Your task to perform on an android device: toggle pop-ups in chrome Image 0: 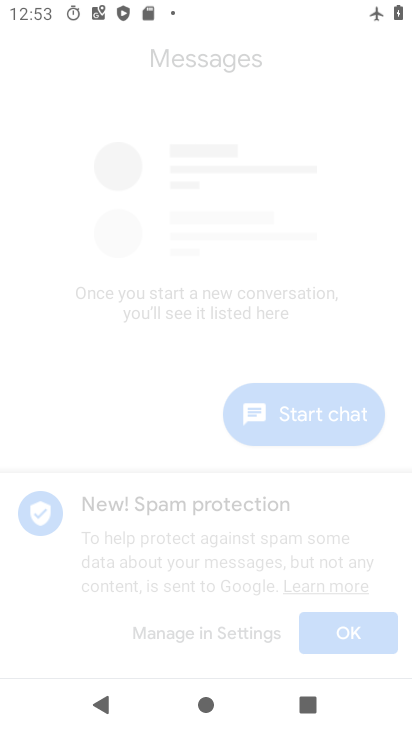
Step 0: drag from (233, 547) to (380, 110)
Your task to perform on an android device: toggle pop-ups in chrome Image 1: 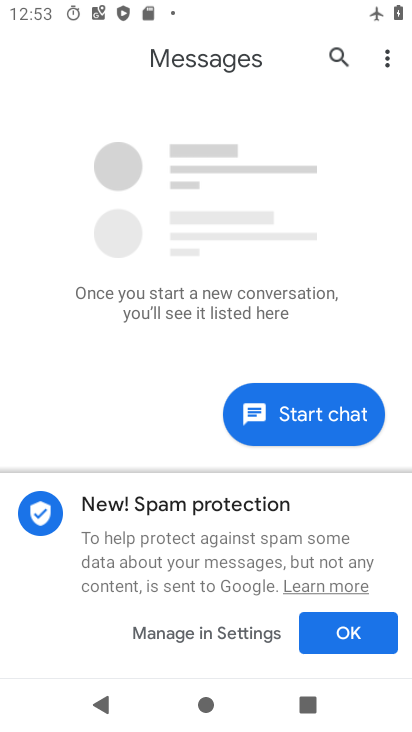
Step 1: press home button
Your task to perform on an android device: toggle pop-ups in chrome Image 2: 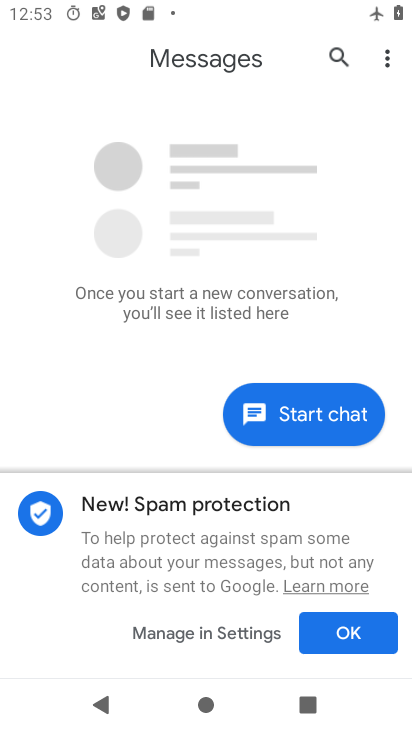
Step 2: click (402, 344)
Your task to perform on an android device: toggle pop-ups in chrome Image 3: 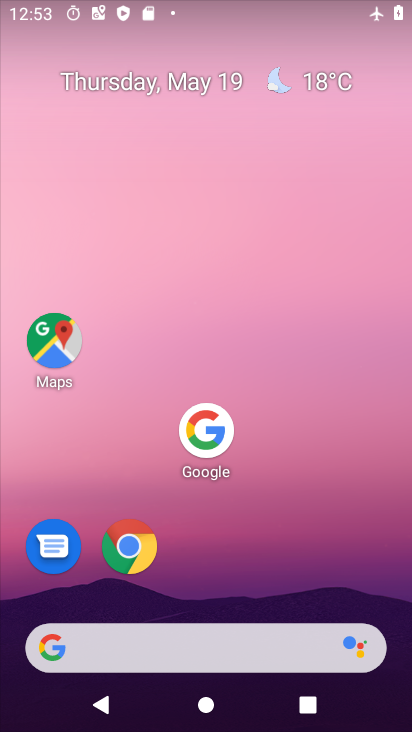
Step 3: click (134, 545)
Your task to perform on an android device: toggle pop-ups in chrome Image 4: 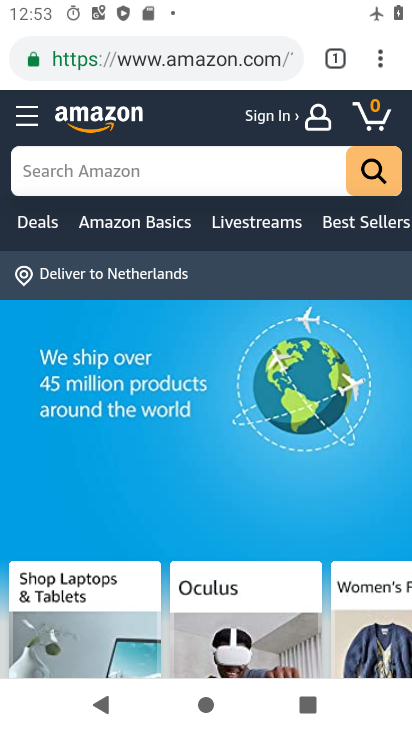
Step 4: click (373, 65)
Your task to perform on an android device: toggle pop-ups in chrome Image 5: 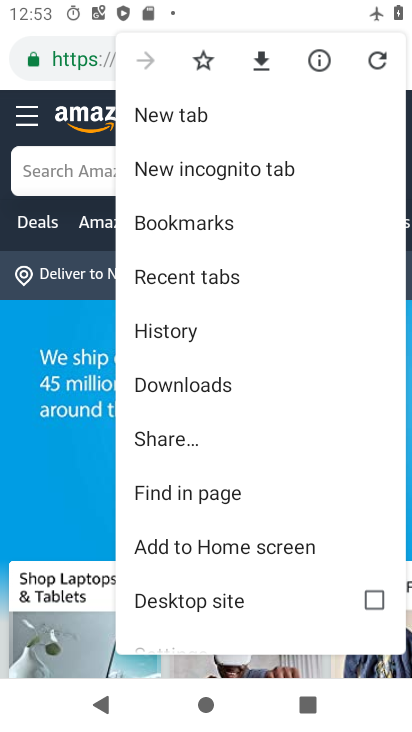
Step 5: drag from (272, 501) to (261, 210)
Your task to perform on an android device: toggle pop-ups in chrome Image 6: 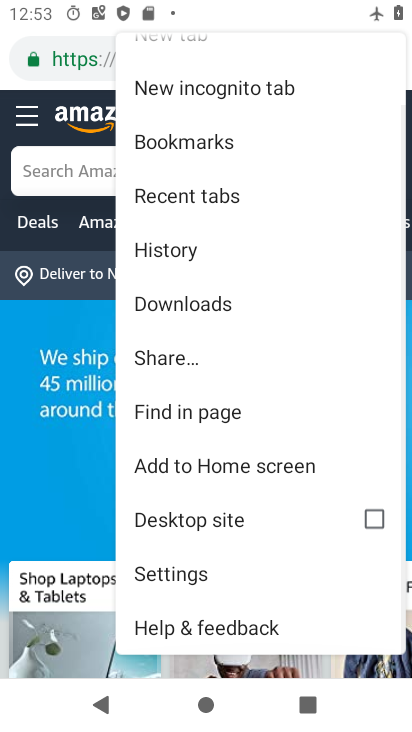
Step 6: click (152, 570)
Your task to perform on an android device: toggle pop-ups in chrome Image 7: 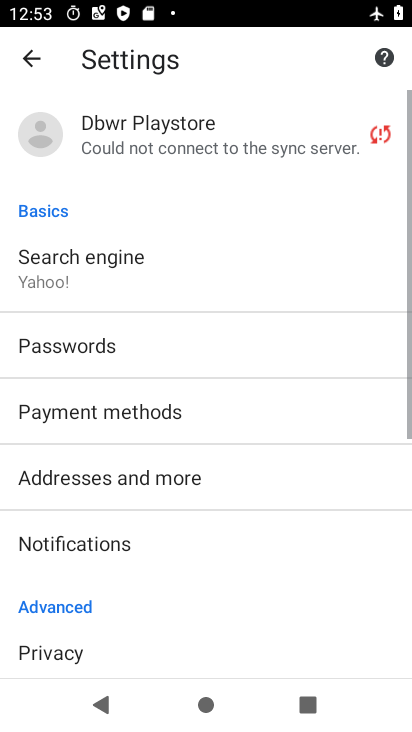
Step 7: drag from (226, 587) to (221, 164)
Your task to perform on an android device: toggle pop-ups in chrome Image 8: 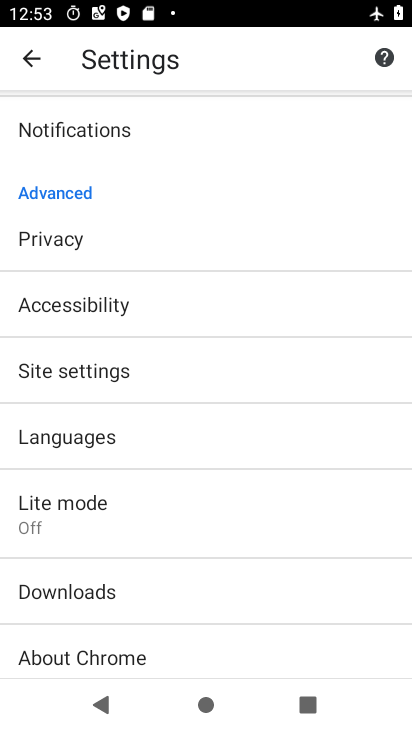
Step 8: click (89, 374)
Your task to perform on an android device: toggle pop-ups in chrome Image 9: 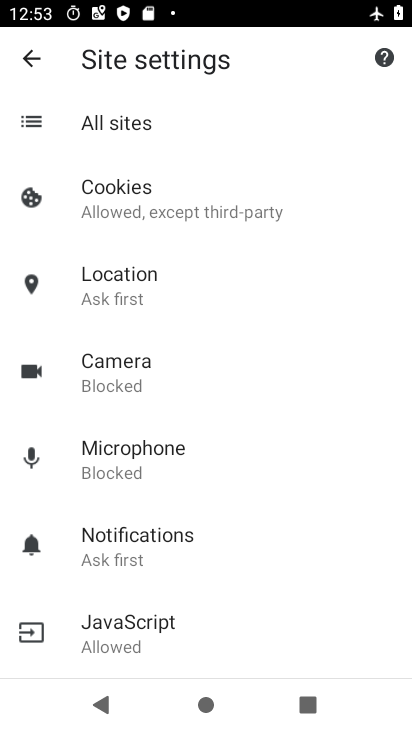
Step 9: drag from (186, 534) to (170, 212)
Your task to perform on an android device: toggle pop-ups in chrome Image 10: 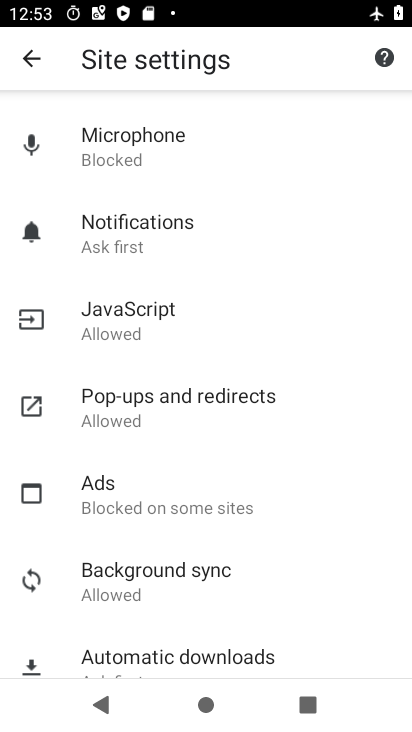
Step 10: click (132, 413)
Your task to perform on an android device: toggle pop-ups in chrome Image 11: 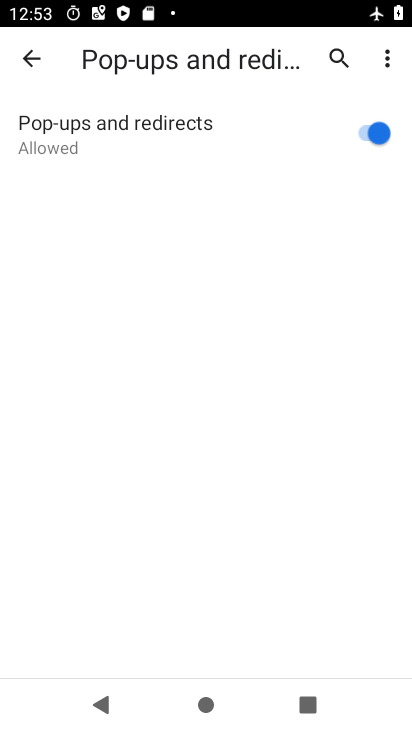
Step 11: click (366, 138)
Your task to perform on an android device: toggle pop-ups in chrome Image 12: 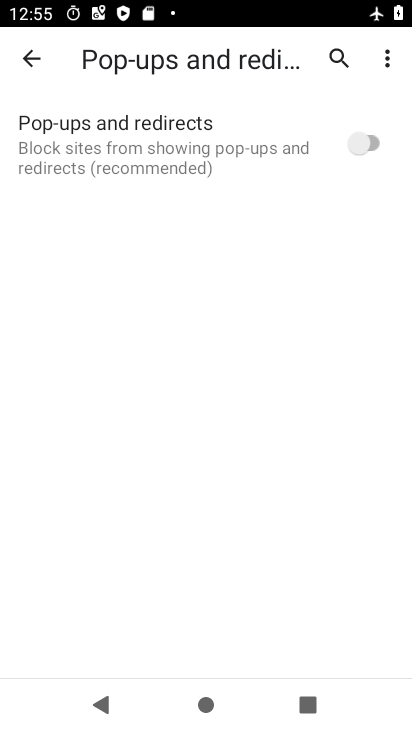
Step 12: task complete